Your task to perform on an android device: Go to ESPN.com Image 0: 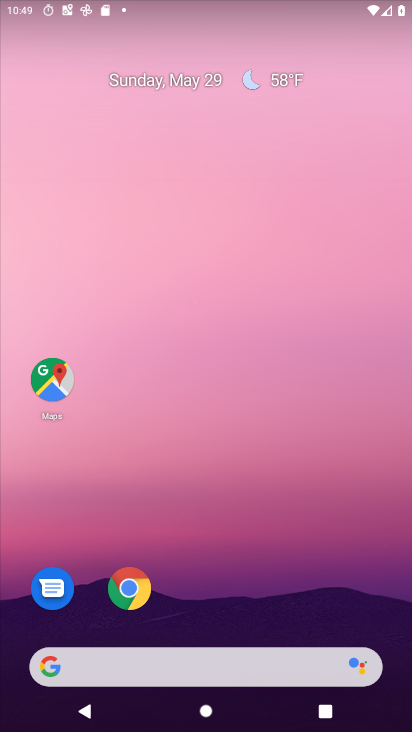
Step 0: drag from (224, 594) to (182, 154)
Your task to perform on an android device: Go to ESPN.com Image 1: 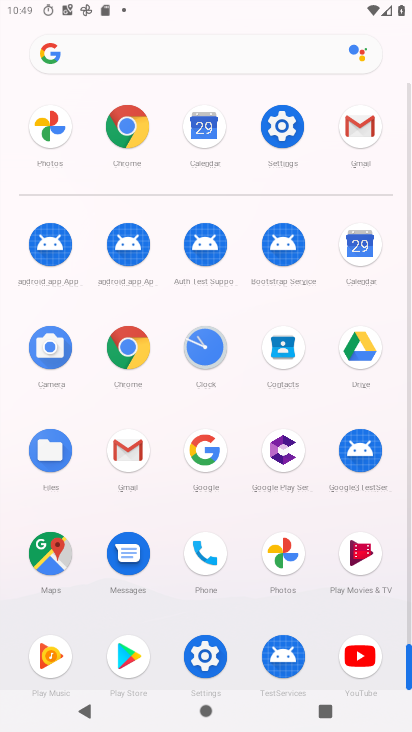
Step 1: click (127, 122)
Your task to perform on an android device: Go to ESPN.com Image 2: 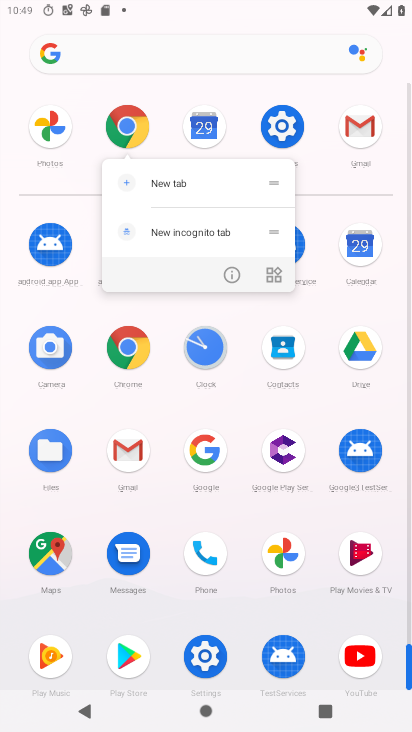
Step 2: click (137, 132)
Your task to perform on an android device: Go to ESPN.com Image 3: 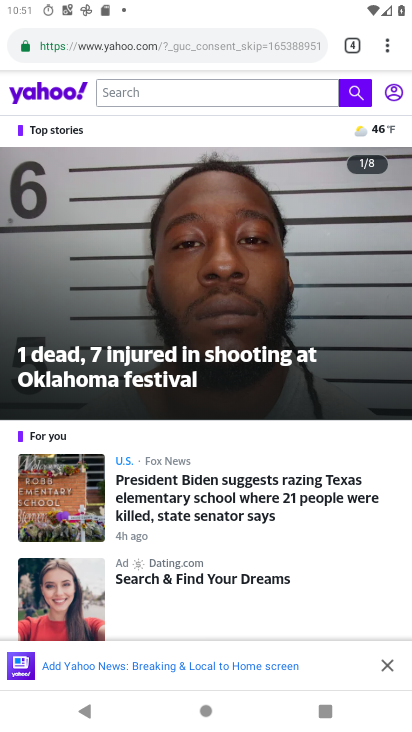
Step 3: click (383, 45)
Your task to perform on an android device: Go to ESPN.com Image 4: 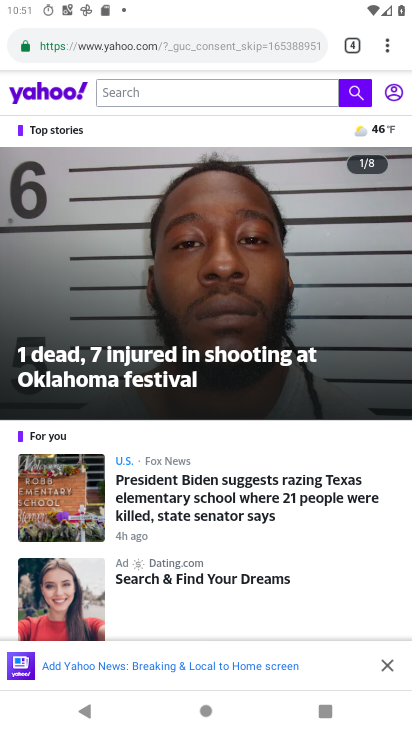
Step 4: click (391, 45)
Your task to perform on an android device: Go to ESPN.com Image 5: 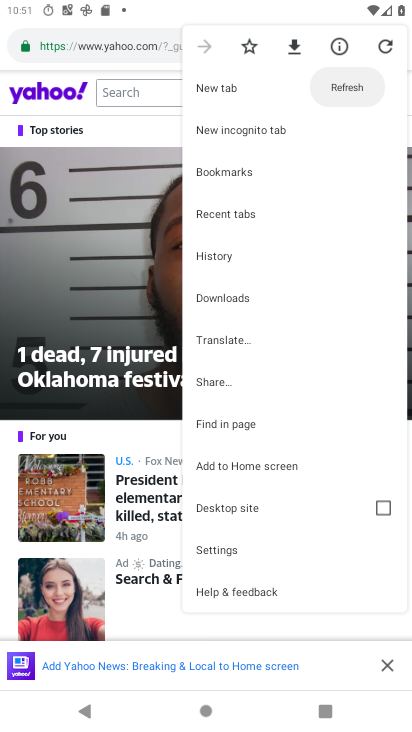
Step 5: click (212, 90)
Your task to perform on an android device: Go to ESPN.com Image 6: 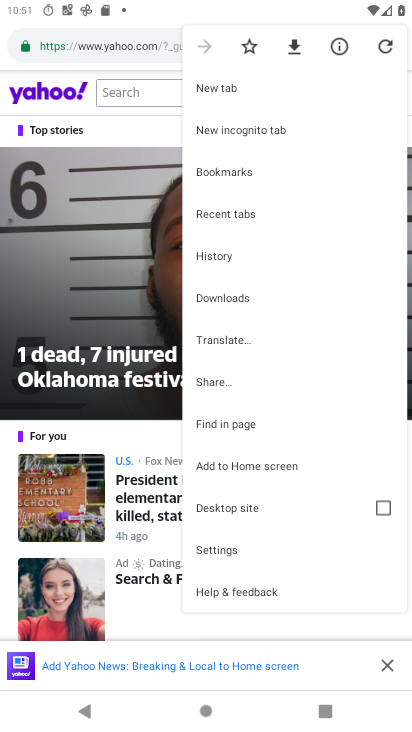
Step 6: click (223, 84)
Your task to perform on an android device: Go to ESPN.com Image 7: 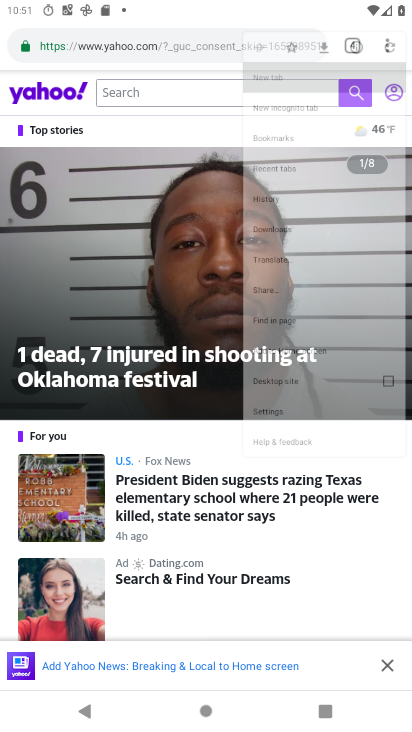
Step 7: click (228, 83)
Your task to perform on an android device: Go to ESPN.com Image 8: 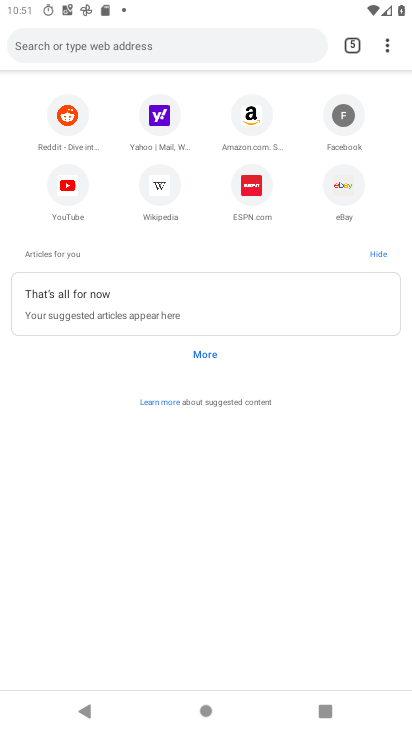
Step 8: click (247, 178)
Your task to perform on an android device: Go to ESPN.com Image 9: 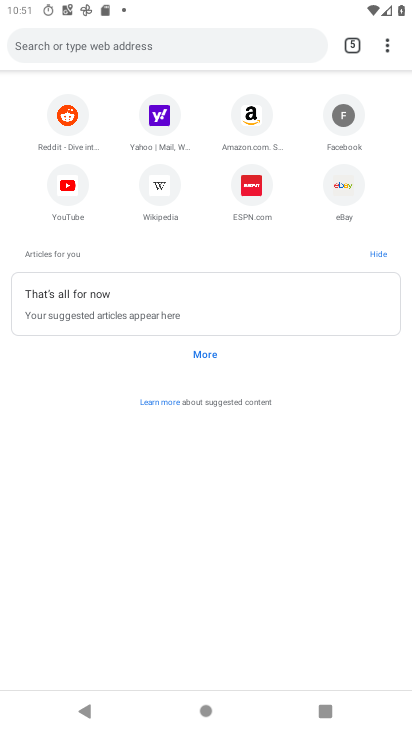
Step 9: click (259, 184)
Your task to perform on an android device: Go to ESPN.com Image 10: 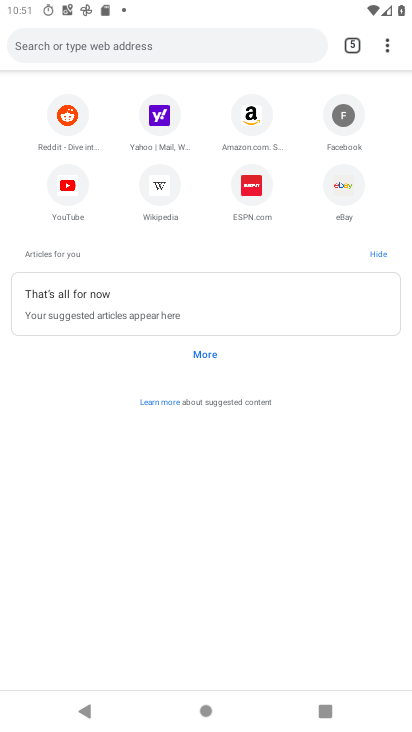
Step 10: click (267, 184)
Your task to perform on an android device: Go to ESPN.com Image 11: 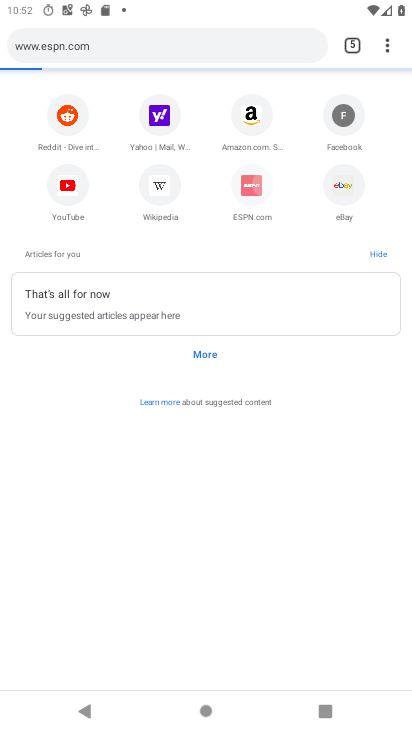
Step 11: click (263, 191)
Your task to perform on an android device: Go to ESPN.com Image 12: 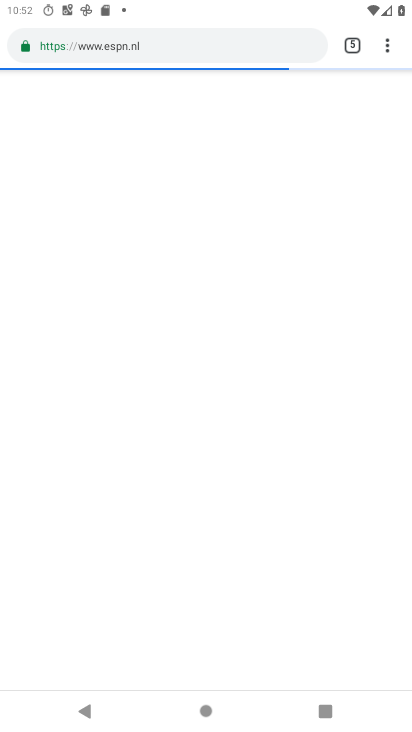
Step 12: task complete